Your task to perform on an android device: Do I have any events today? Image 0: 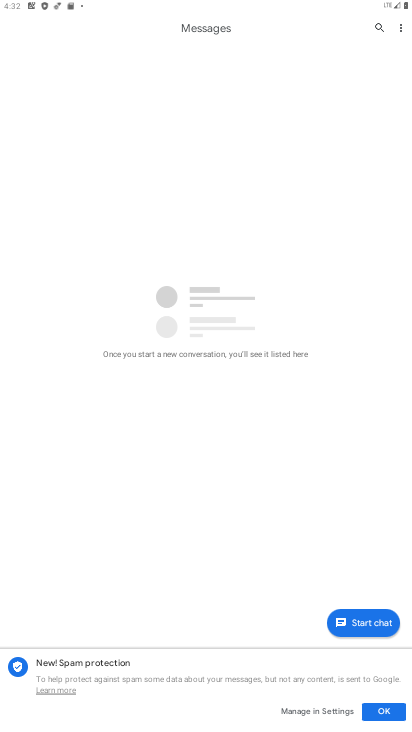
Step 0: press home button
Your task to perform on an android device: Do I have any events today? Image 1: 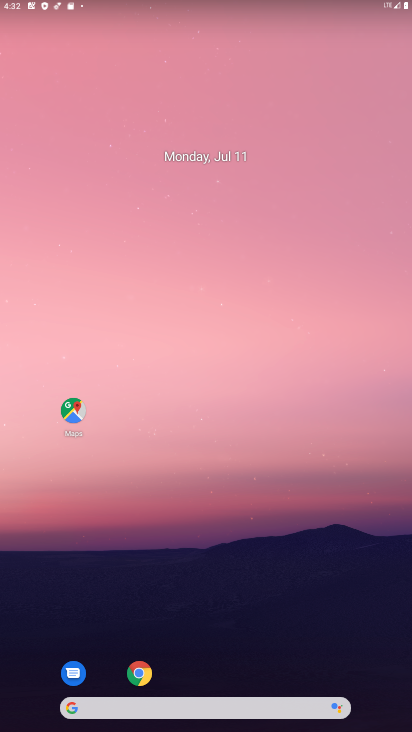
Step 1: drag from (356, 610) to (342, 115)
Your task to perform on an android device: Do I have any events today? Image 2: 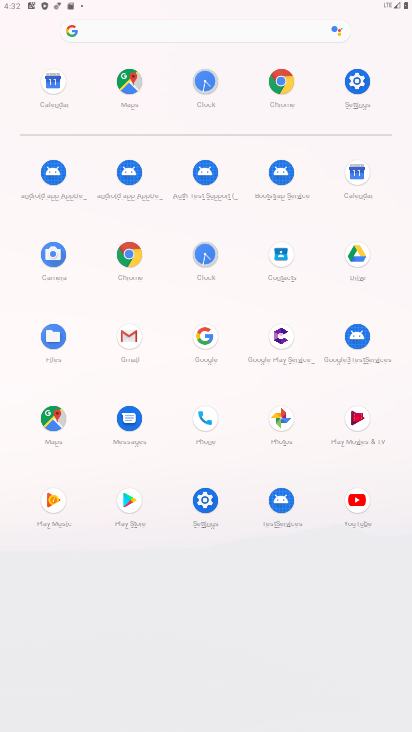
Step 2: click (46, 86)
Your task to perform on an android device: Do I have any events today? Image 3: 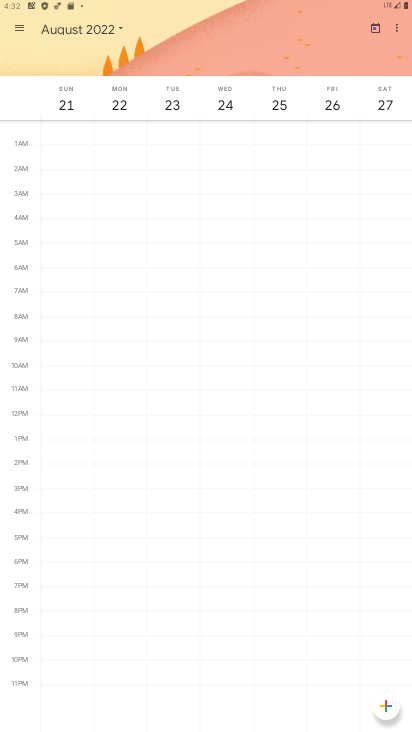
Step 3: click (105, 28)
Your task to perform on an android device: Do I have any events today? Image 4: 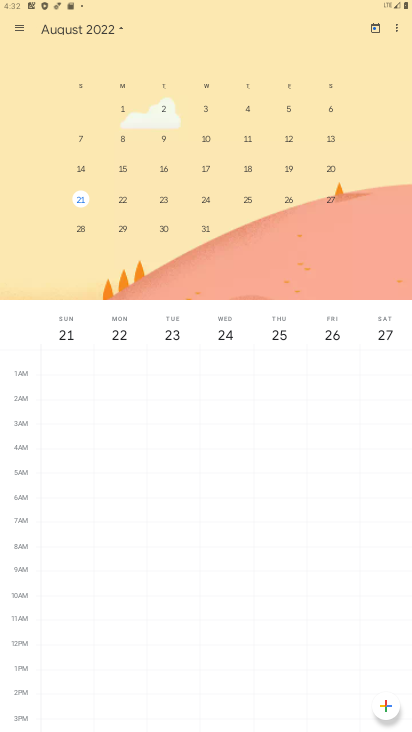
Step 4: drag from (81, 161) to (402, 198)
Your task to perform on an android device: Do I have any events today? Image 5: 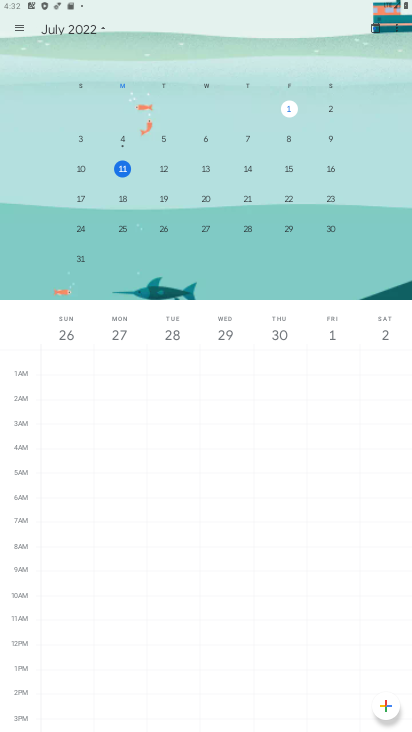
Step 5: click (127, 170)
Your task to perform on an android device: Do I have any events today? Image 6: 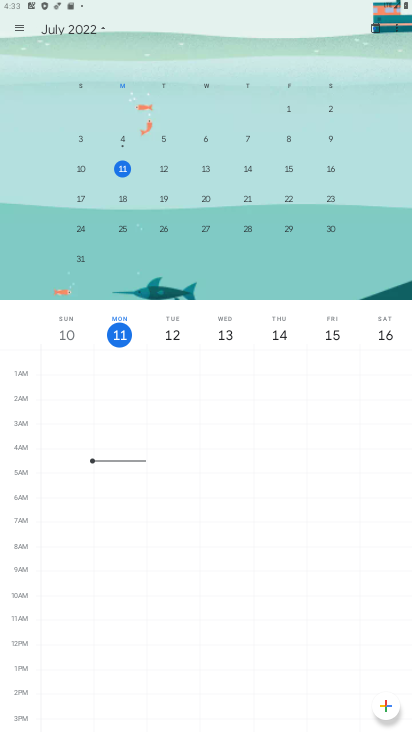
Step 6: click (124, 166)
Your task to perform on an android device: Do I have any events today? Image 7: 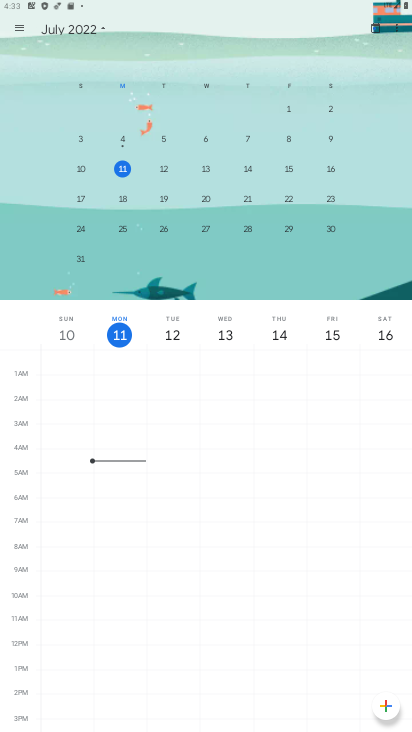
Step 7: task complete